Your task to perform on an android device: Open network settings Image 0: 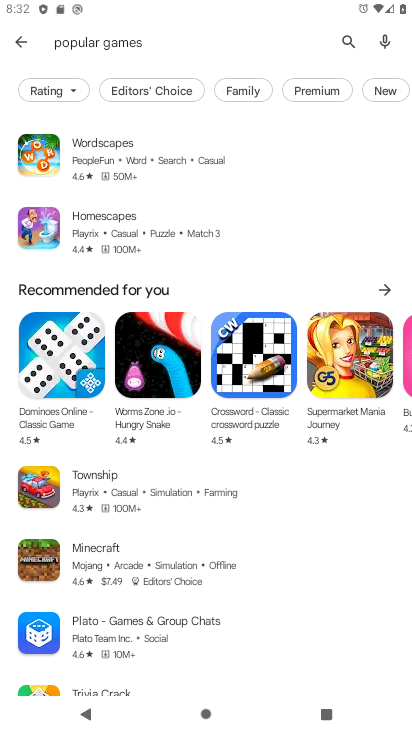
Step 0: press home button
Your task to perform on an android device: Open network settings Image 1: 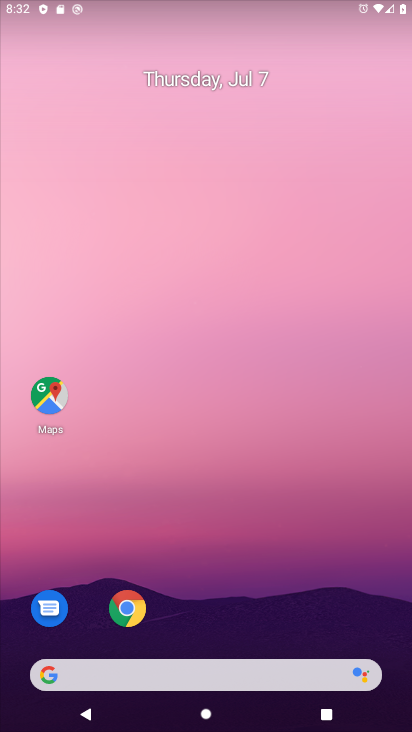
Step 1: drag from (166, 661) to (190, 265)
Your task to perform on an android device: Open network settings Image 2: 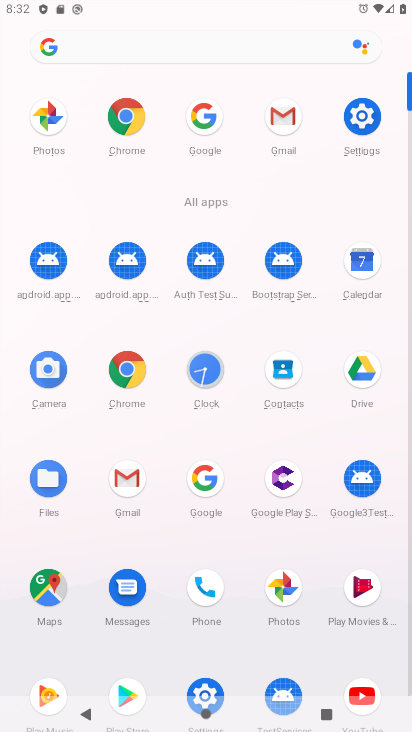
Step 2: click (354, 119)
Your task to perform on an android device: Open network settings Image 3: 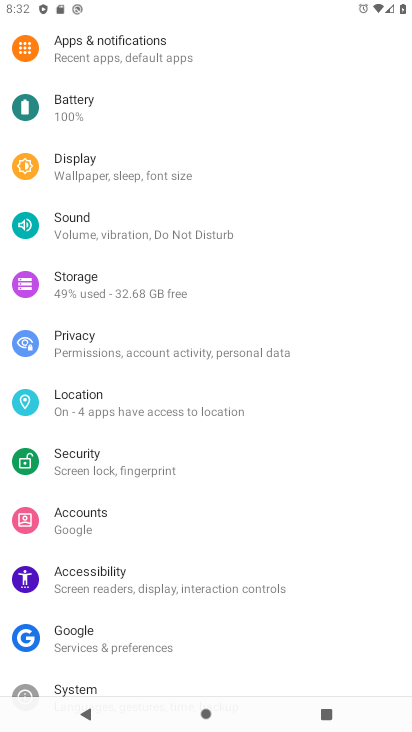
Step 3: drag from (123, 78) to (146, 541)
Your task to perform on an android device: Open network settings Image 4: 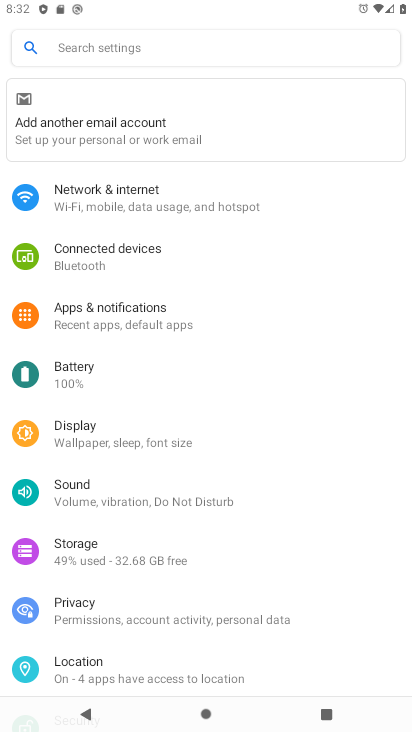
Step 4: click (121, 203)
Your task to perform on an android device: Open network settings Image 5: 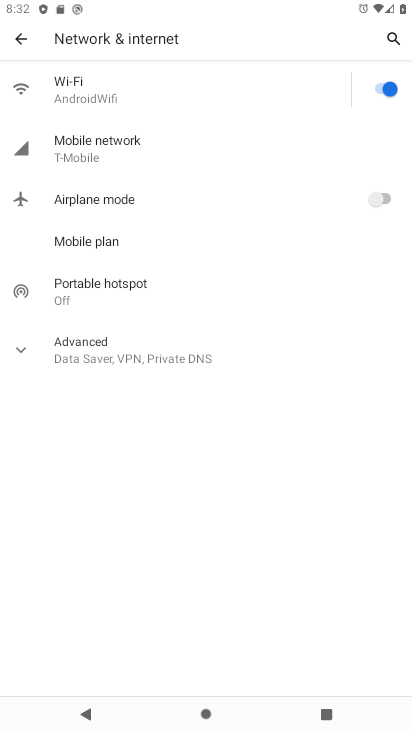
Step 5: click (99, 361)
Your task to perform on an android device: Open network settings Image 6: 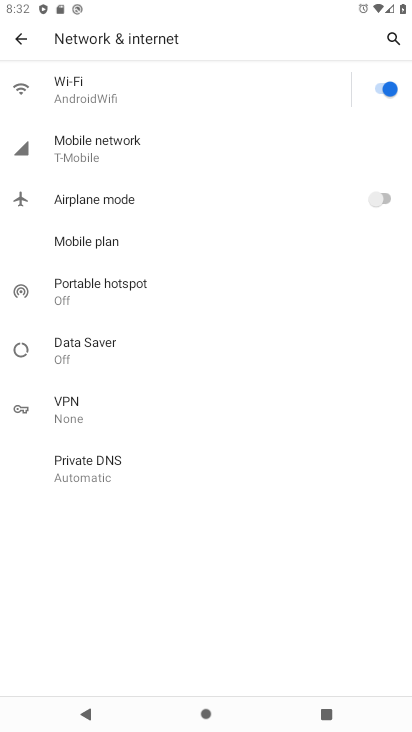
Step 6: task complete